Your task to perform on an android device: open a new tab in the chrome app Image 0: 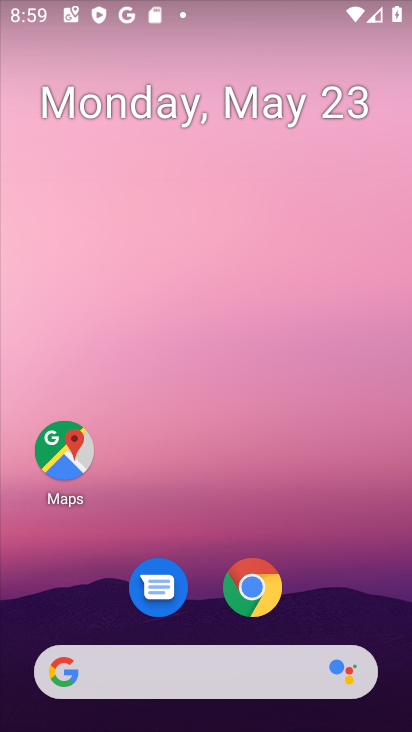
Step 0: click (267, 578)
Your task to perform on an android device: open a new tab in the chrome app Image 1: 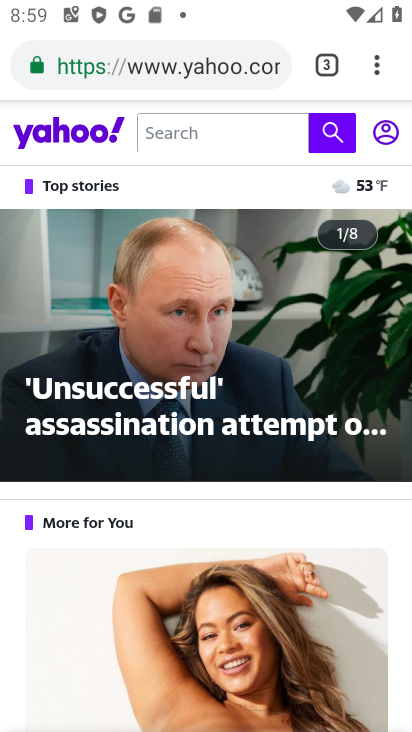
Step 1: task complete